Your task to perform on an android device: Go to Android settings Image 0: 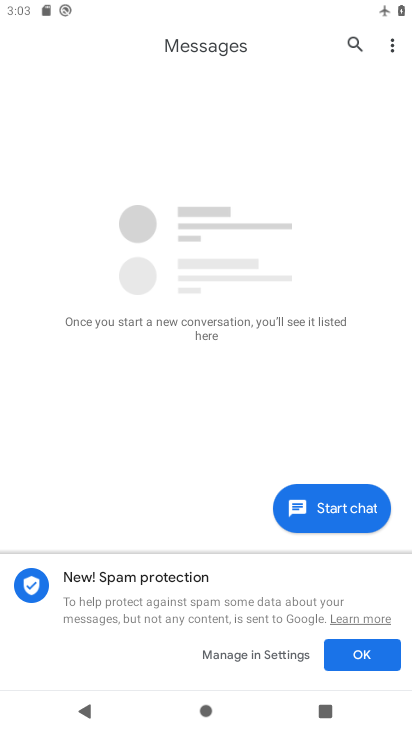
Step 0: drag from (226, 617) to (174, 313)
Your task to perform on an android device: Go to Android settings Image 1: 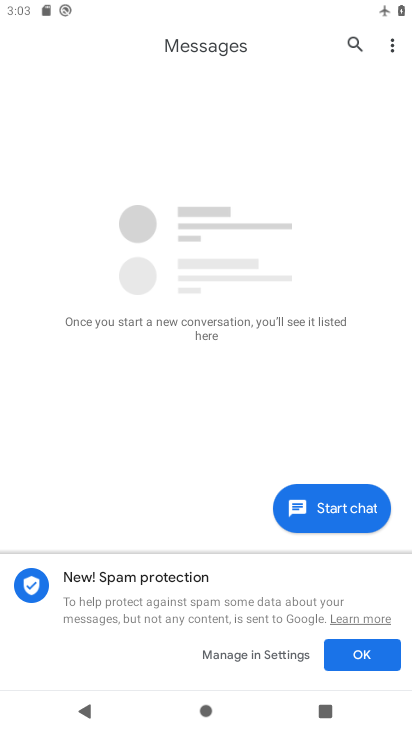
Step 1: press home button
Your task to perform on an android device: Go to Android settings Image 2: 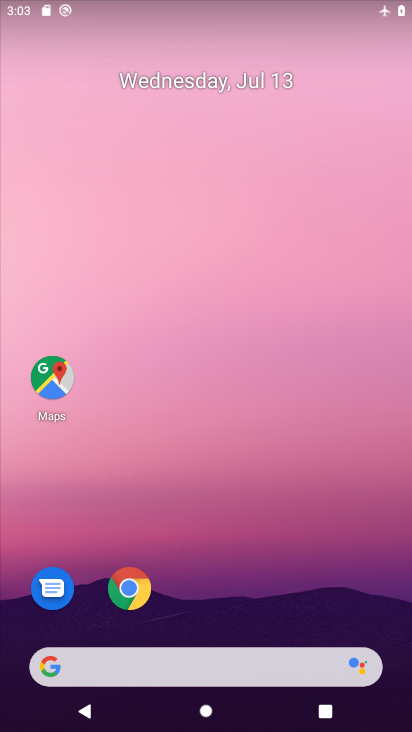
Step 2: drag from (180, 632) to (171, 56)
Your task to perform on an android device: Go to Android settings Image 3: 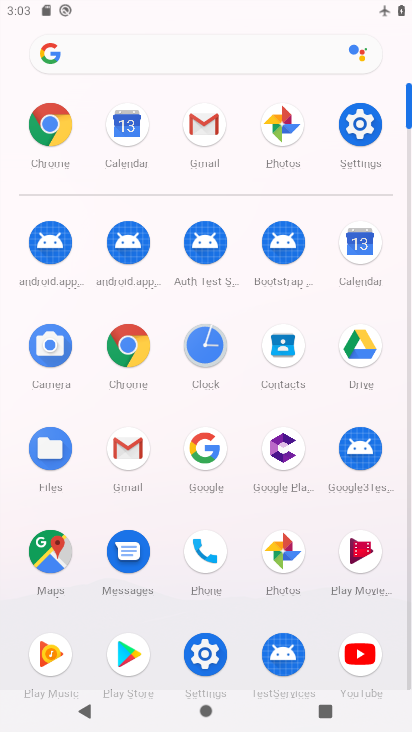
Step 3: click (362, 128)
Your task to perform on an android device: Go to Android settings Image 4: 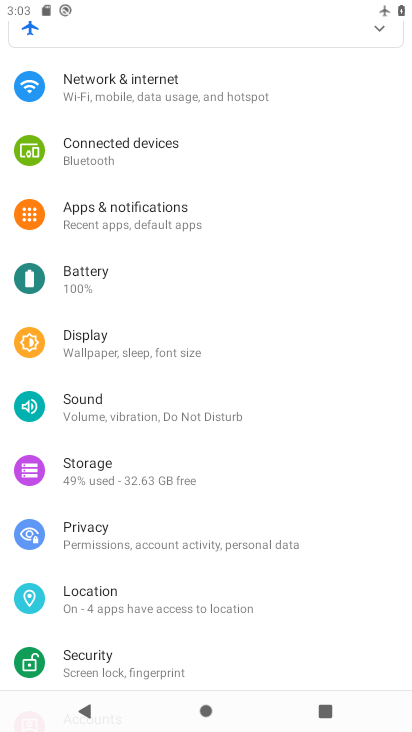
Step 4: task complete